Your task to perform on an android device: install app "Adobe Express: Graphic Design" Image 0: 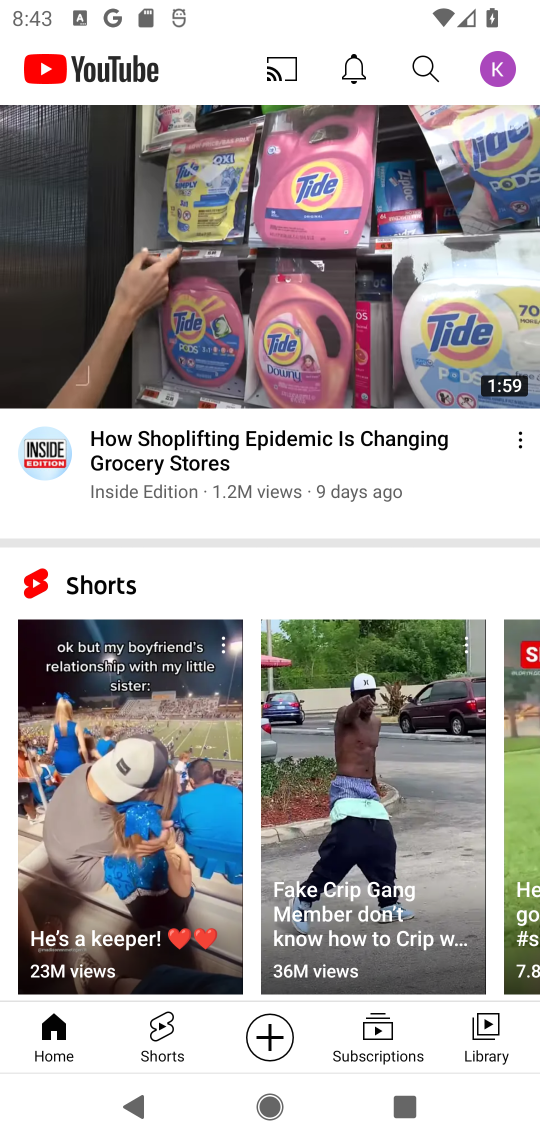
Step 0: press home button
Your task to perform on an android device: install app "Adobe Express: Graphic Design" Image 1: 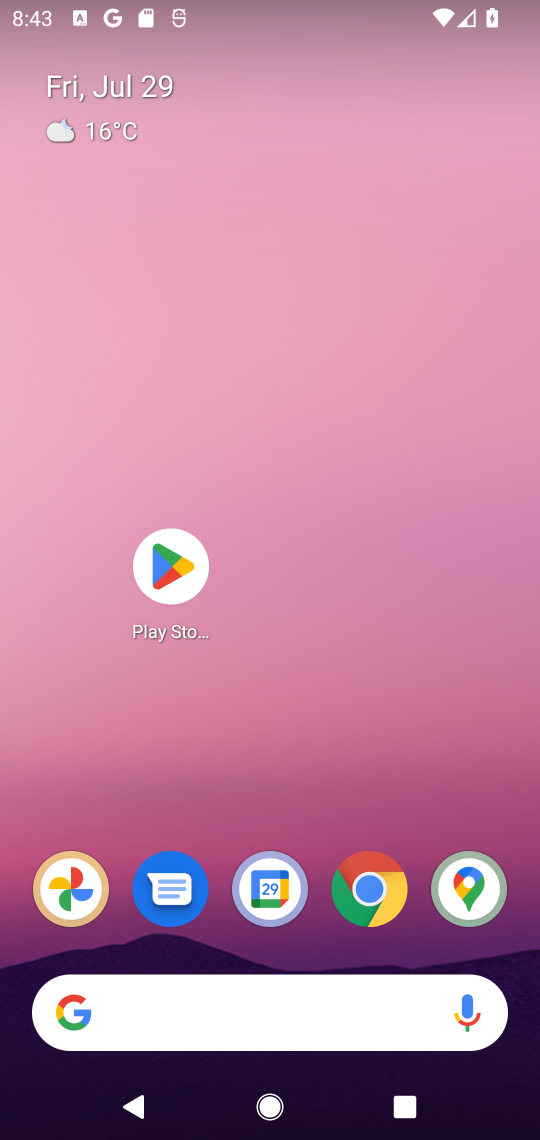
Step 1: click (179, 555)
Your task to perform on an android device: install app "Adobe Express: Graphic Design" Image 2: 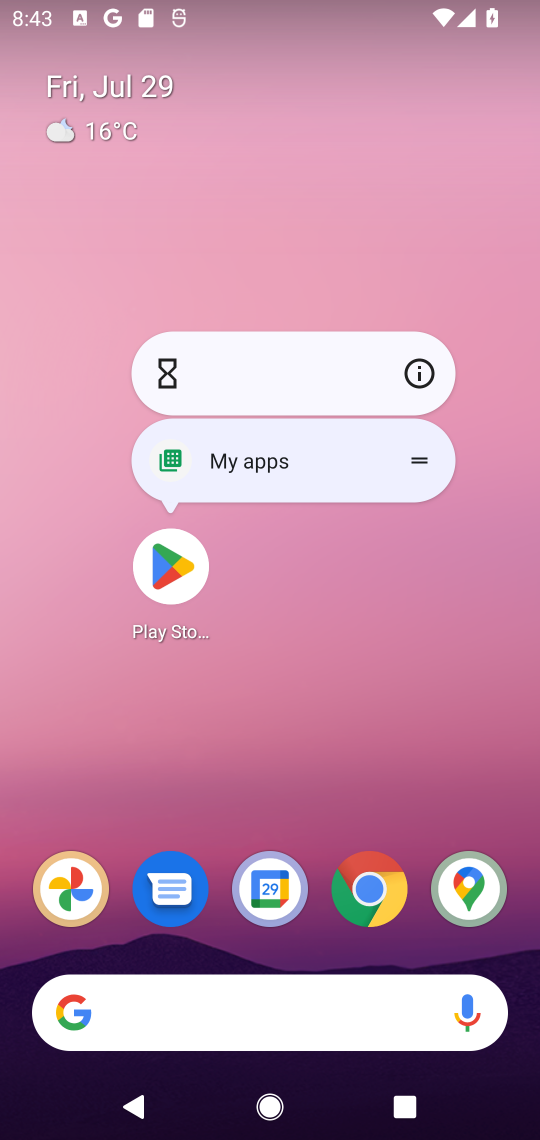
Step 2: click (170, 558)
Your task to perform on an android device: install app "Adobe Express: Graphic Design" Image 3: 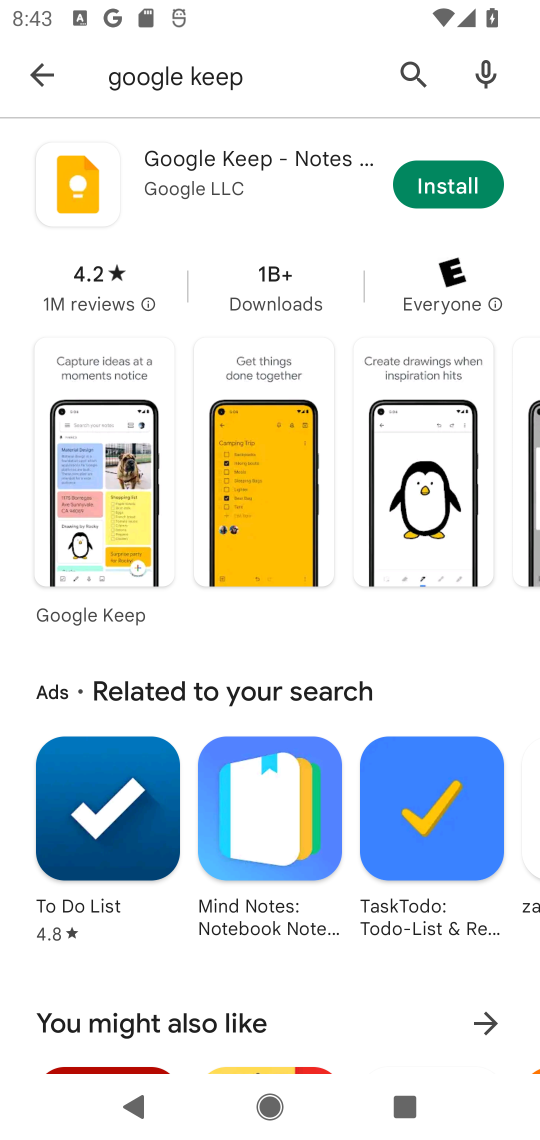
Step 3: click (410, 76)
Your task to perform on an android device: install app "Adobe Express: Graphic Design" Image 4: 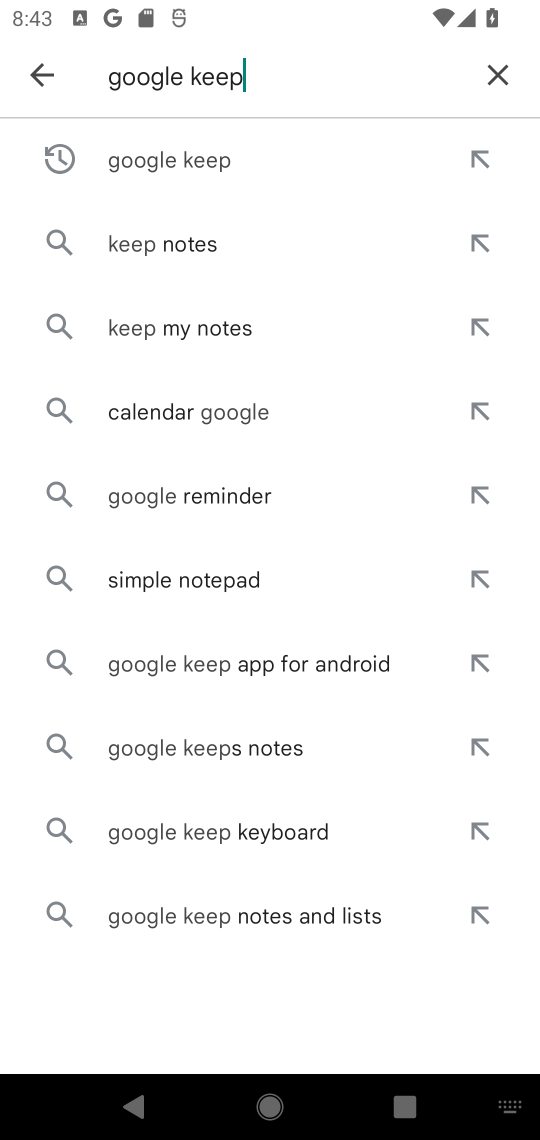
Step 4: click (500, 73)
Your task to perform on an android device: install app "Adobe Express: Graphic Design" Image 5: 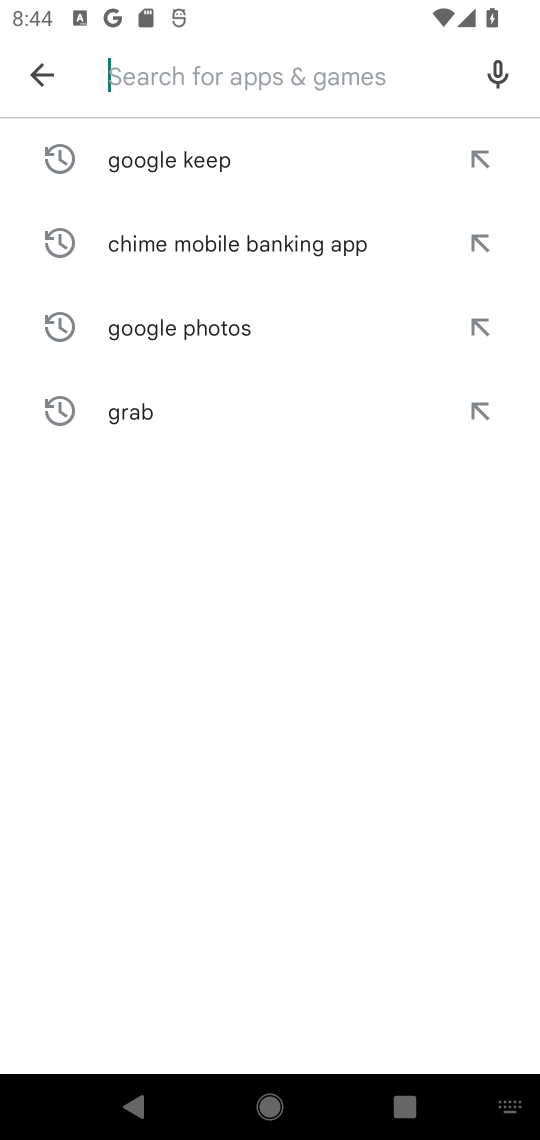
Step 5: type "Adobe Express: Graphic Design"
Your task to perform on an android device: install app "Adobe Express: Graphic Design" Image 6: 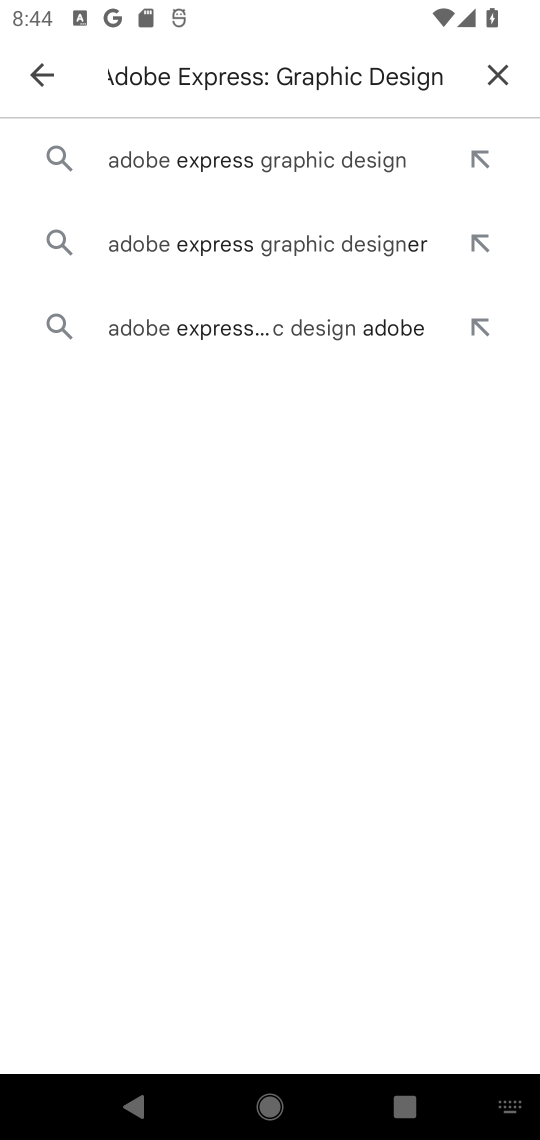
Step 6: click (258, 163)
Your task to perform on an android device: install app "Adobe Express: Graphic Design" Image 7: 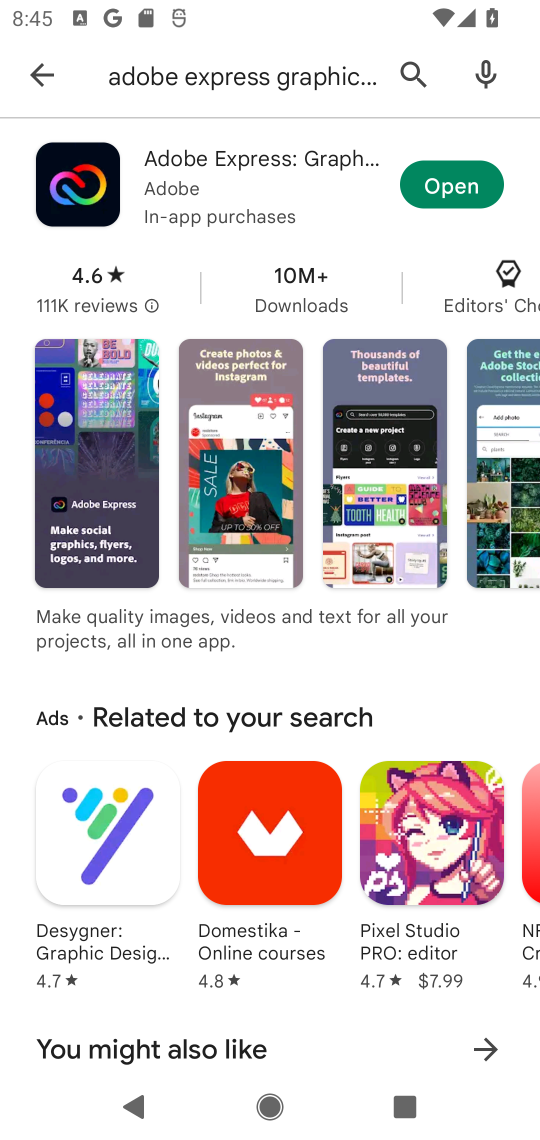
Step 7: task complete